Your task to perform on an android device: turn pop-ups on in chrome Image 0: 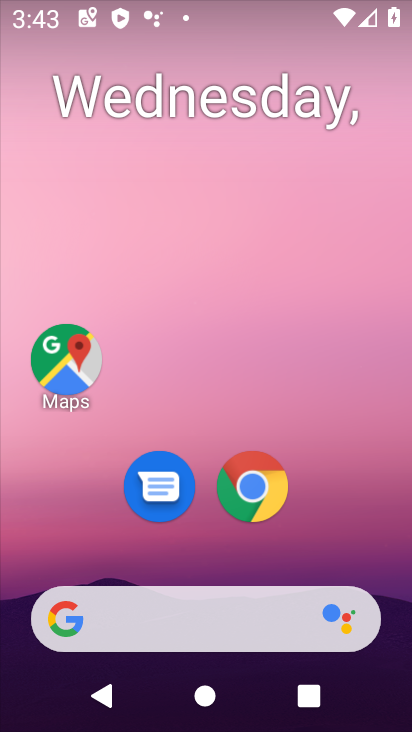
Step 0: click (242, 490)
Your task to perform on an android device: turn pop-ups on in chrome Image 1: 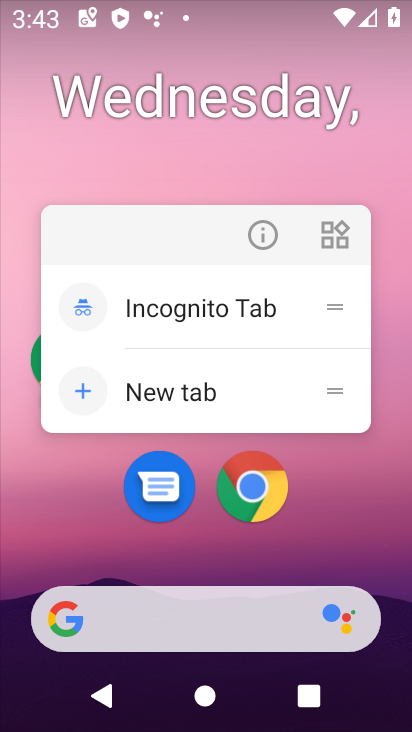
Step 1: click (238, 491)
Your task to perform on an android device: turn pop-ups on in chrome Image 2: 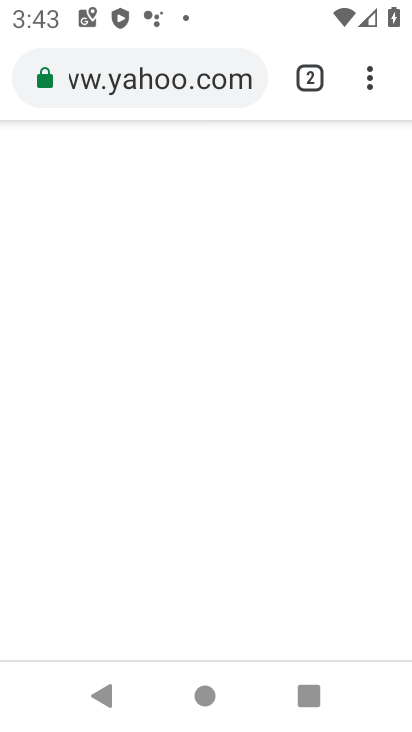
Step 2: click (369, 84)
Your task to perform on an android device: turn pop-ups on in chrome Image 3: 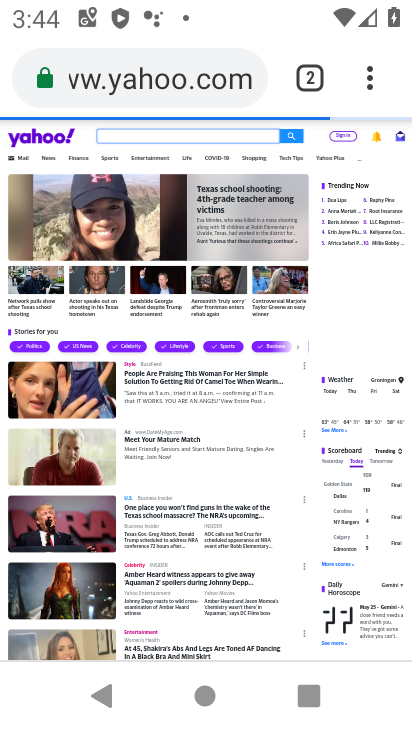
Step 3: click (374, 66)
Your task to perform on an android device: turn pop-ups on in chrome Image 4: 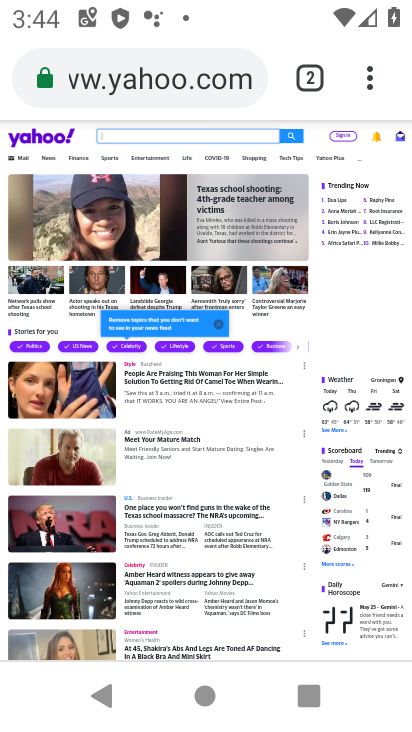
Step 4: click (360, 83)
Your task to perform on an android device: turn pop-ups on in chrome Image 5: 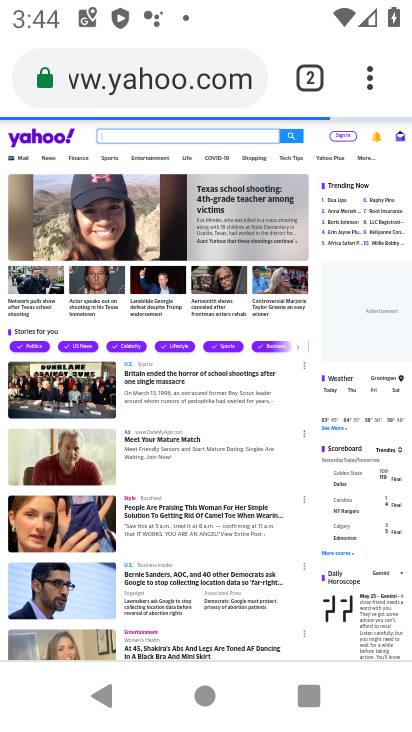
Step 5: click (368, 74)
Your task to perform on an android device: turn pop-ups on in chrome Image 6: 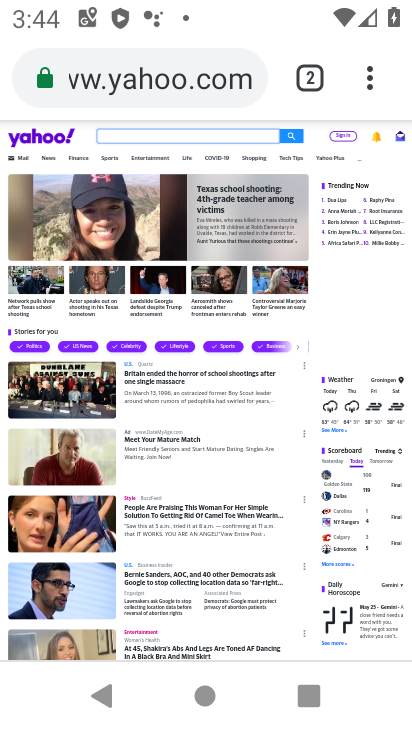
Step 6: click (367, 76)
Your task to perform on an android device: turn pop-ups on in chrome Image 7: 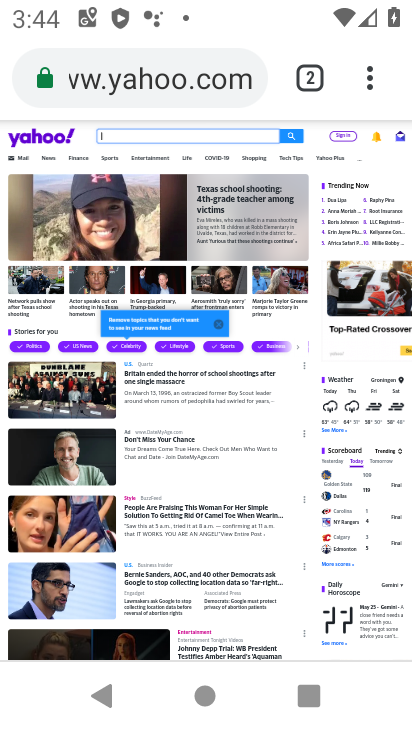
Step 7: click (366, 74)
Your task to perform on an android device: turn pop-ups on in chrome Image 8: 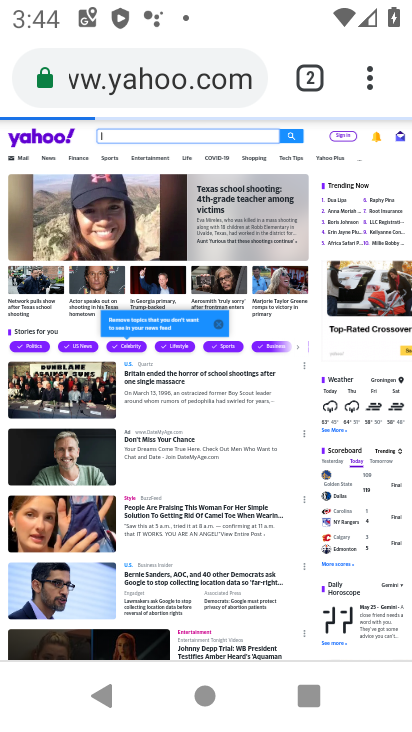
Step 8: click (365, 61)
Your task to perform on an android device: turn pop-ups on in chrome Image 9: 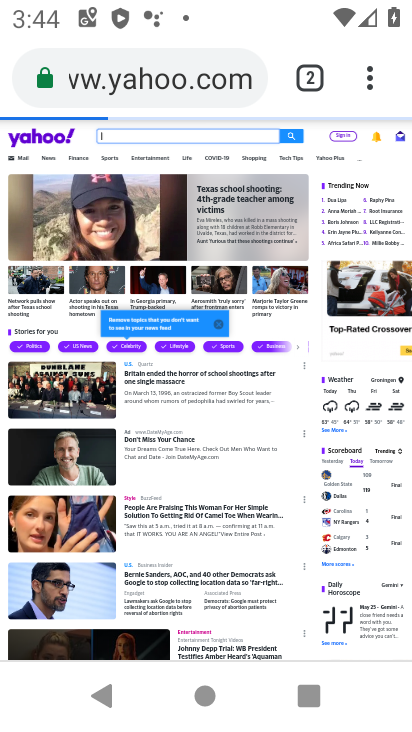
Step 9: click (363, 75)
Your task to perform on an android device: turn pop-ups on in chrome Image 10: 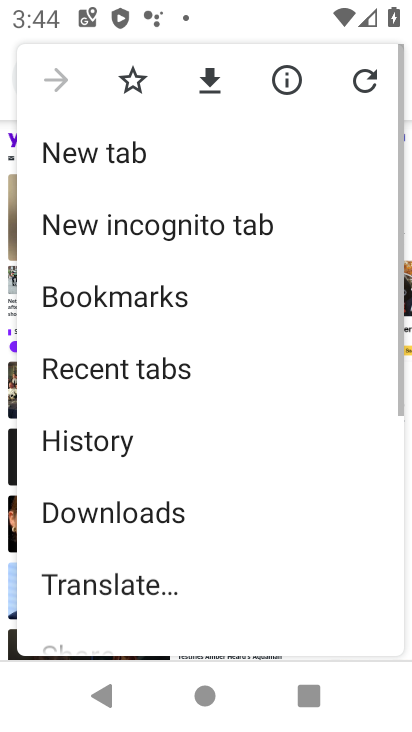
Step 10: click (372, 72)
Your task to perform on an android device: turn pop-ups on in chrome Image 11: 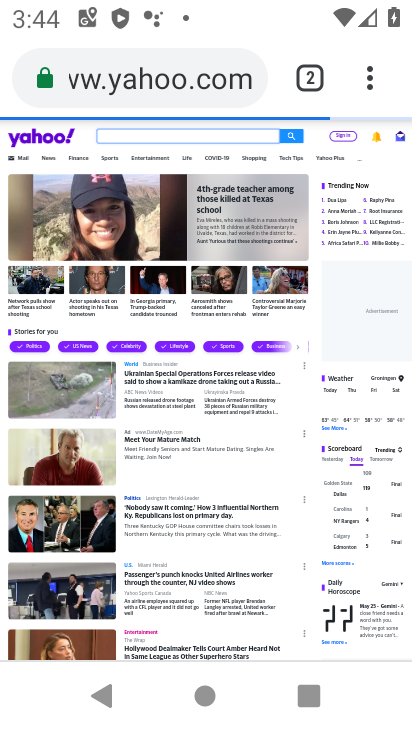
Step 11: click (369, 78)
Your task to perform on an android device: turn pop-ups on in chrome Image 12: 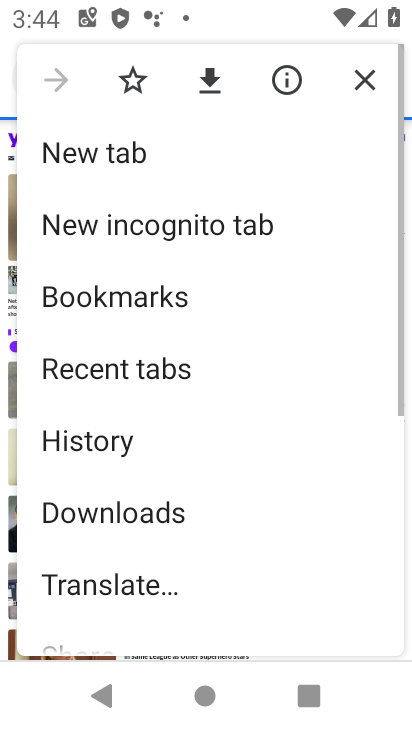
Step 12: drag from (231, 570) to (174, 146)
Your task to perform on an android device: turn pop-ups on in chrome Image 13: 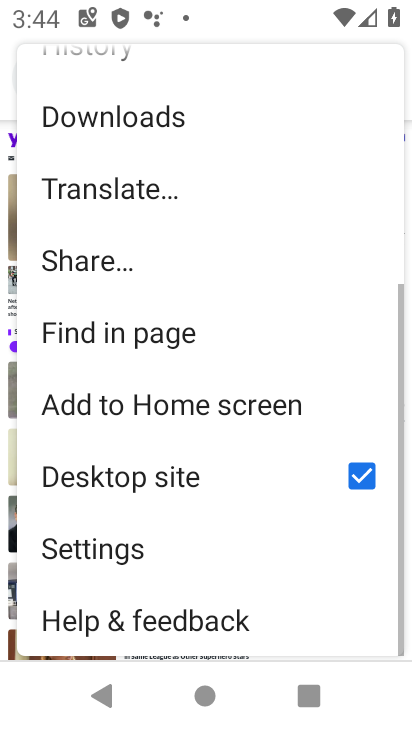
Step 13: click (138, 551)
Your task to perform on an android device: turn pop-ups on in chrome Image 14: 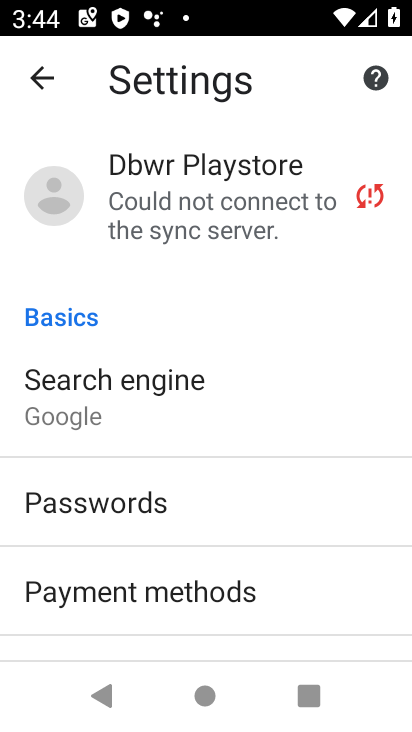
Step 14: drag from (117, 589) to (97, 299)
Your task to perform on an android device: turn pop-ups on in chrome Image 15: 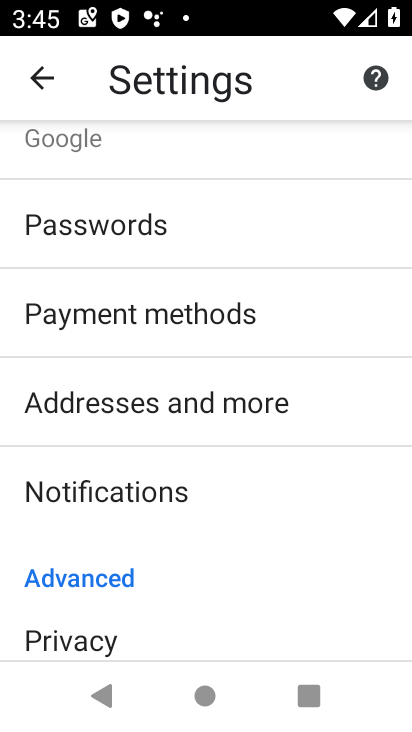
Step 15: drag from (146, 595) to (188, 322)
Your task to perform on an android device: turn pop-ups on in chrome Image 16: 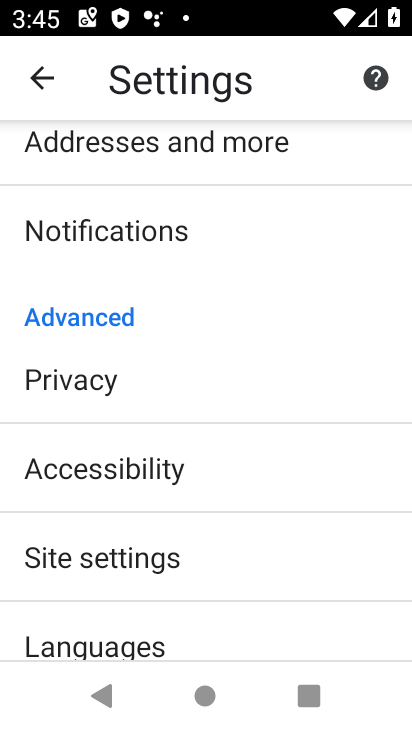
Step 16: click (115, 563)
Your task to perform on an android device: turn pop-ups on in chrome Image 17: 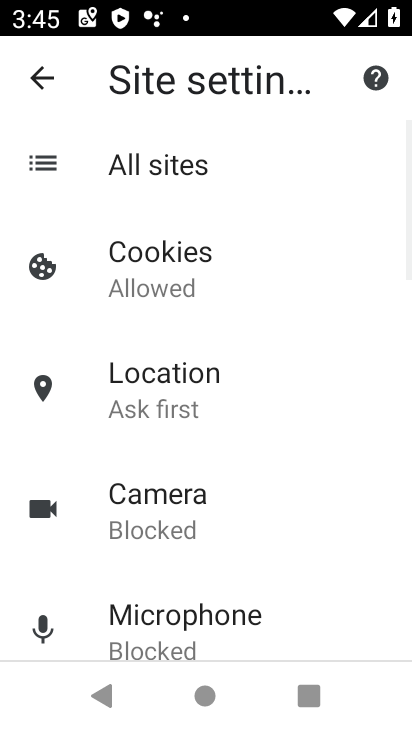
Step 17: drag from (190, 637) to (198, 223)
Your task to perform on an android device: turn pop-ups on in chrome Image 18: 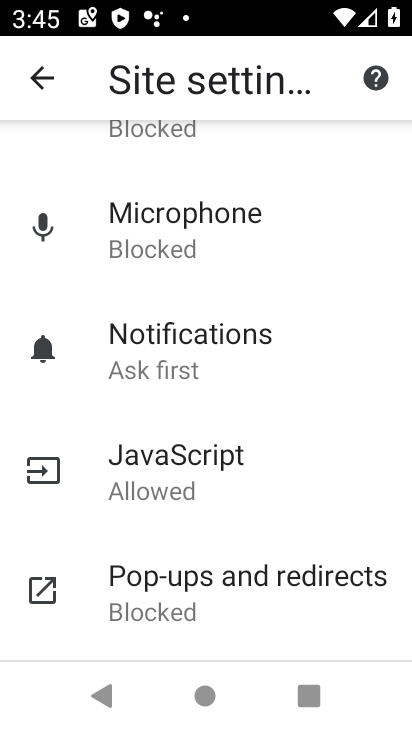
Step 18: click (217, 586)
Your task to perform on an android device: turn pop-ups on in chrome Image 19: 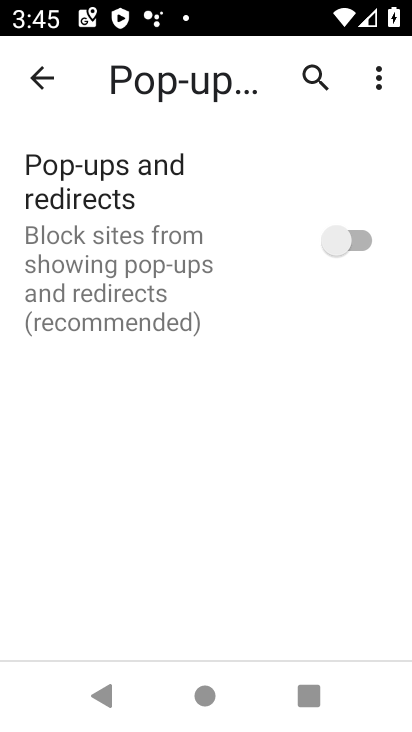
Step 19: click (360, 230)
Your task to perform on an android device: turn pop-ups on in chrome Image 20: 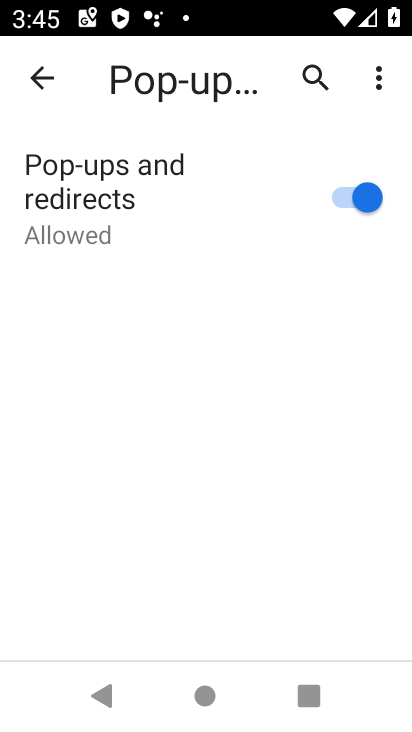
Step 20: task complete